Your task to perform on an android device: read, delete, or share a saved page in the chrome app Image 0: 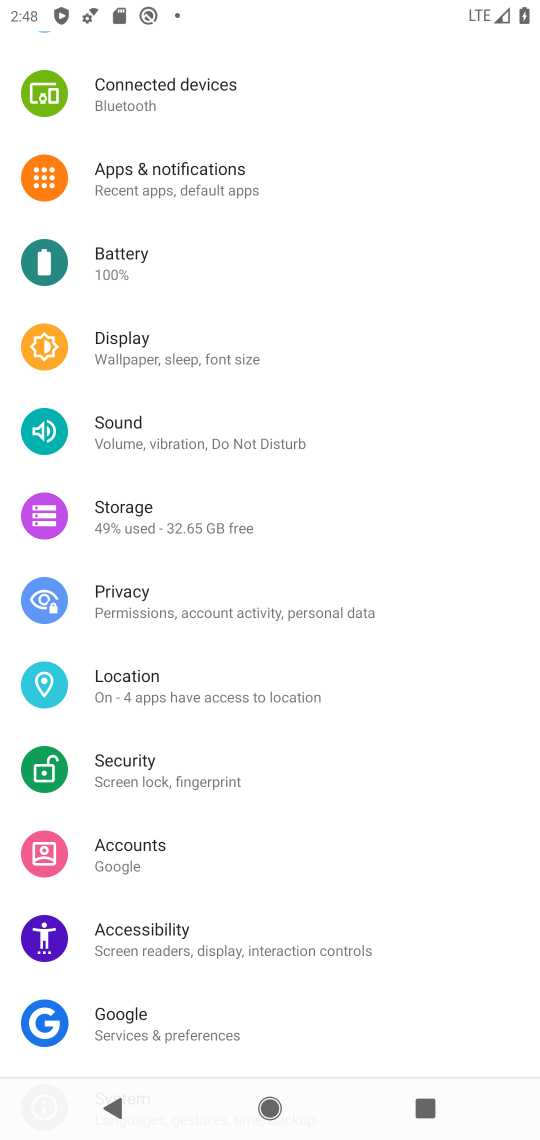
Step 0: press home button
Your task to perform on an android device: read, delete, or share a saved page in the chrome app Image 1: 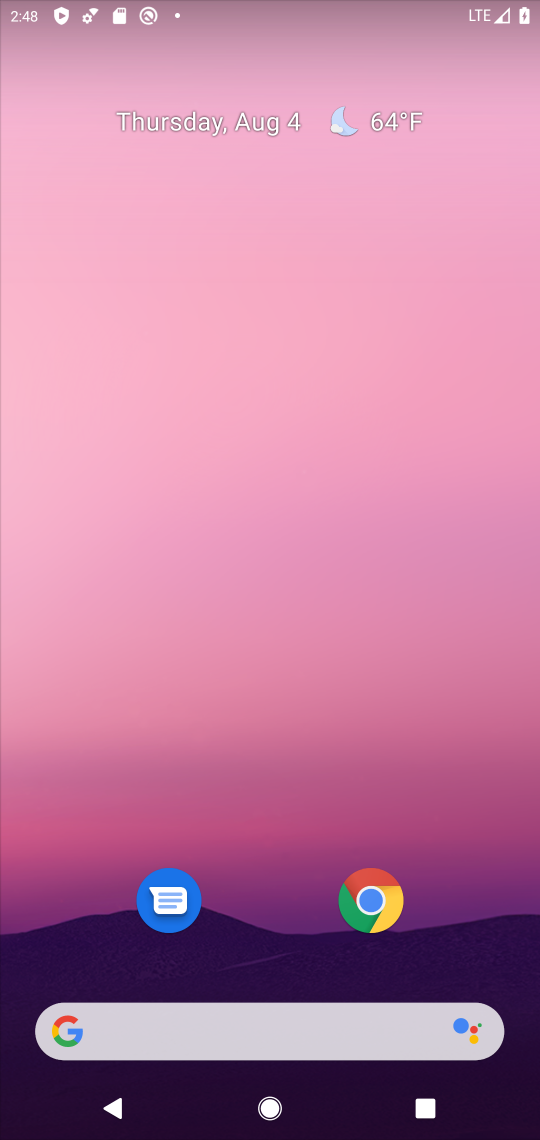
Step 1: click (402, 889)
Your task to perform on an android device: read, delete, or share a saved page in the chrome app Image 2: 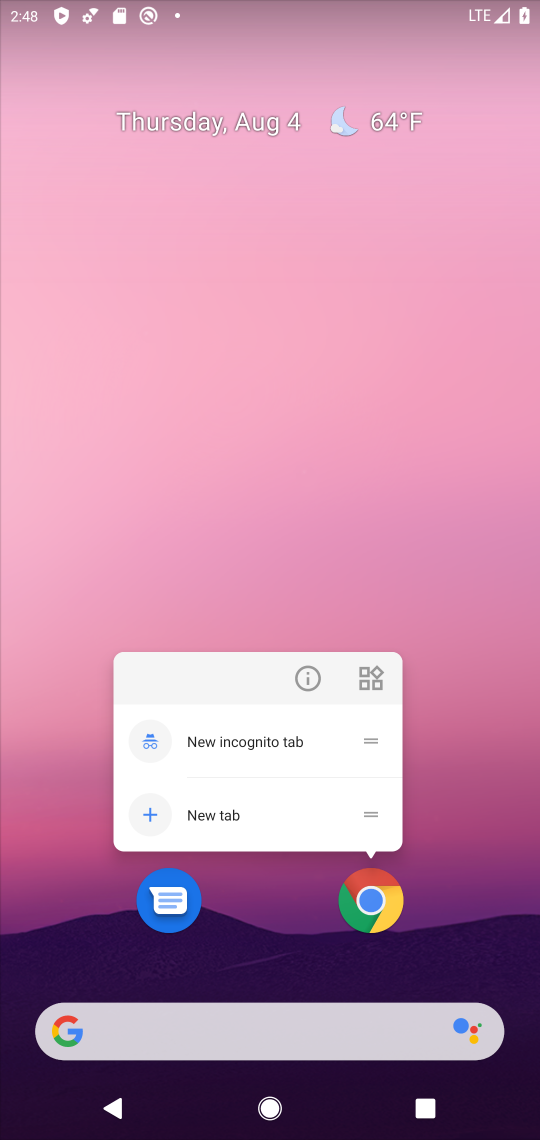
Step 2: click (388, 889)
Your task to perform on an android device: read, delete, or share a saved page in the chrome app Image 3: 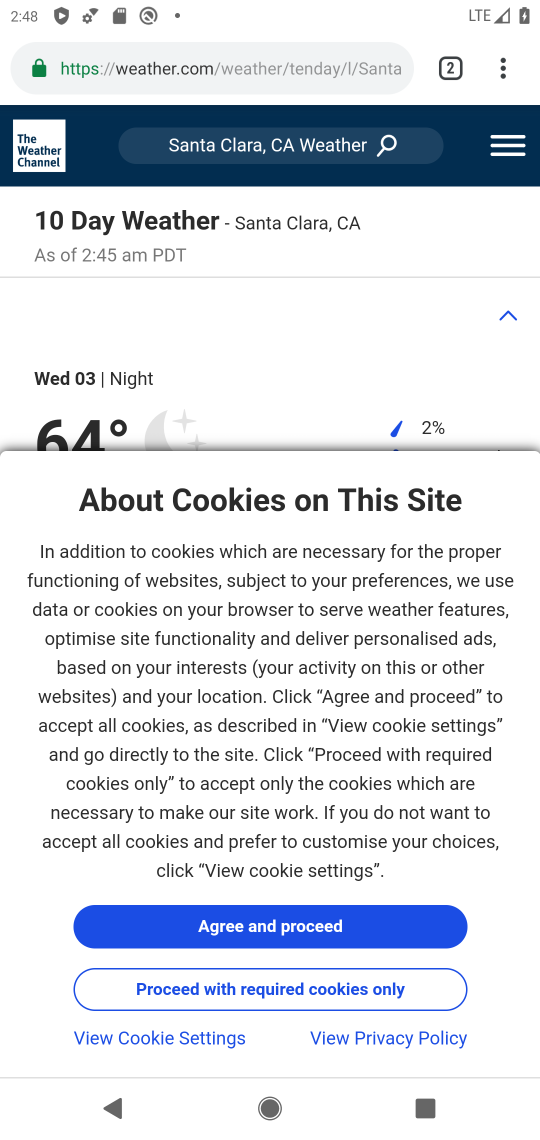
Step 3: click (510, 75)
Your task to perform on an android device: read, delete, or share a saved page in the chrome app Image 4: 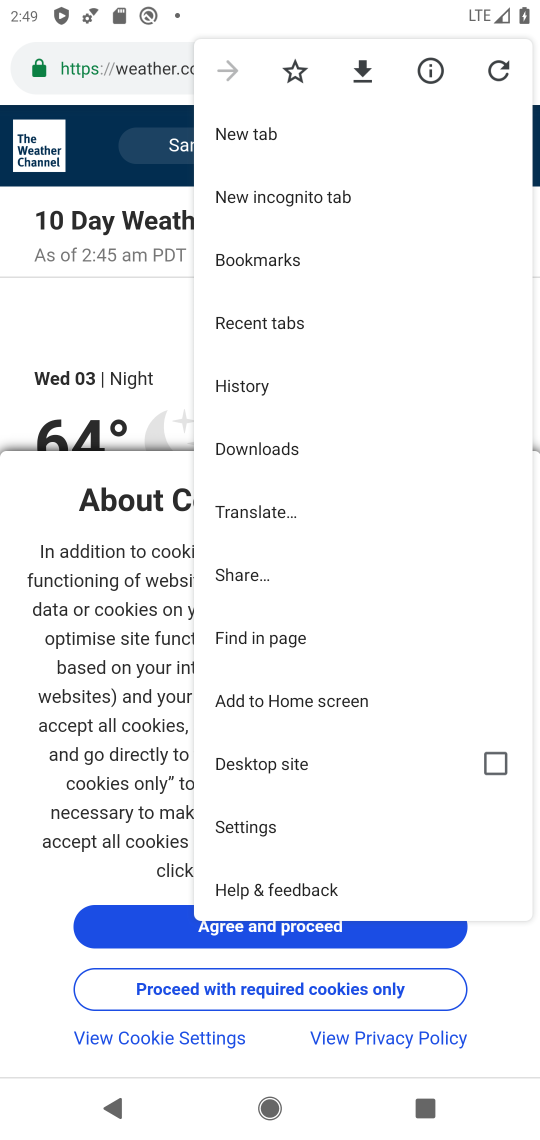
Step 4: click (272, 458)
Your task to perform on an android device: read, delete, or share a saved page in the chrome app Image 5: 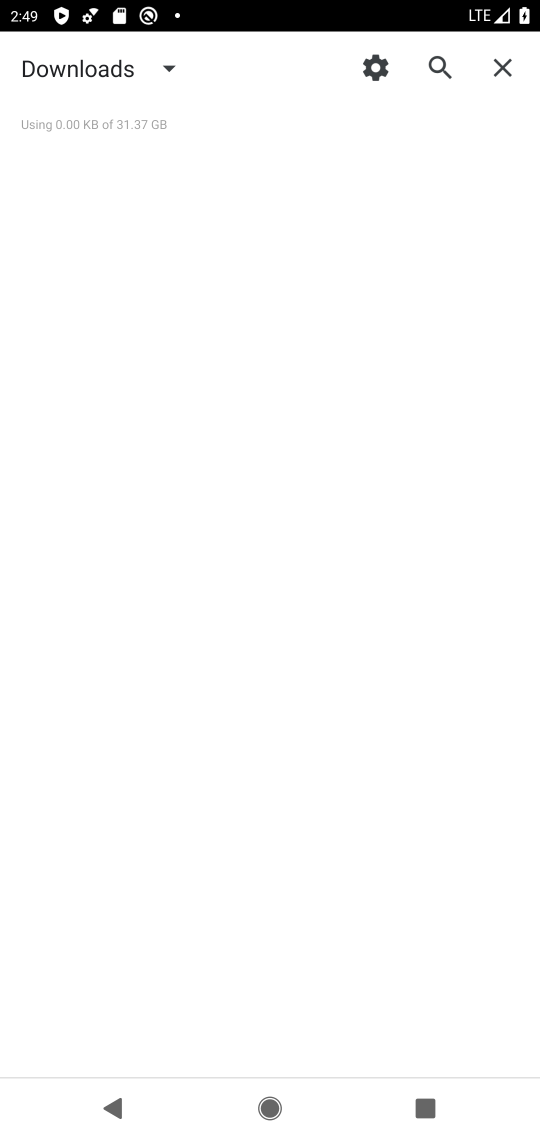
Step 5: click (173, 71)
Your task to perform on an android device: read, delete, or share a saved page in the chrome app Image 6: 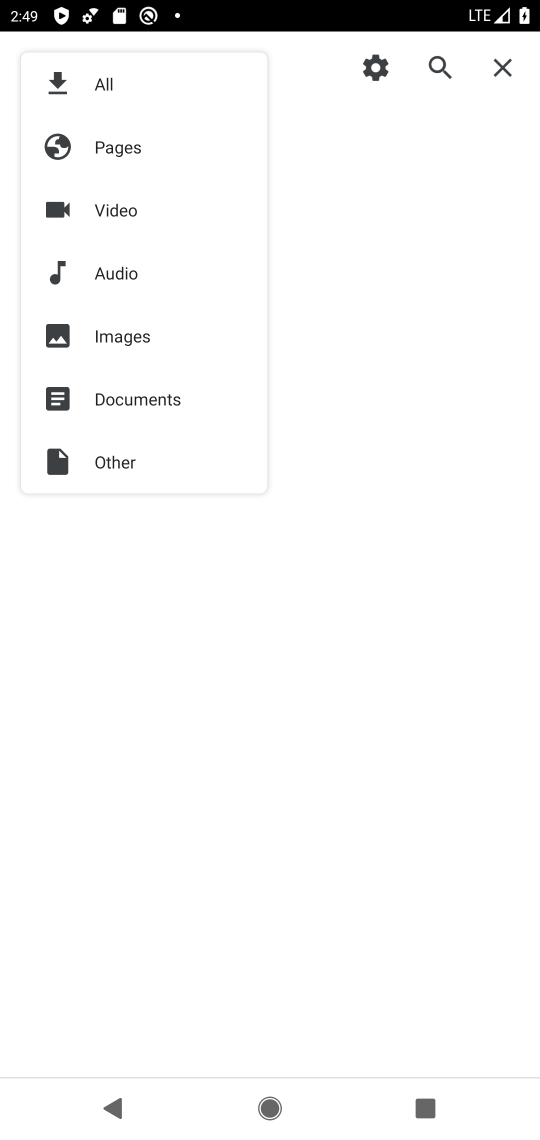
Step 6: click (161, 151)
Your task to perform on an android device: read, delete, or share a saved page in the chrome app Image 7: 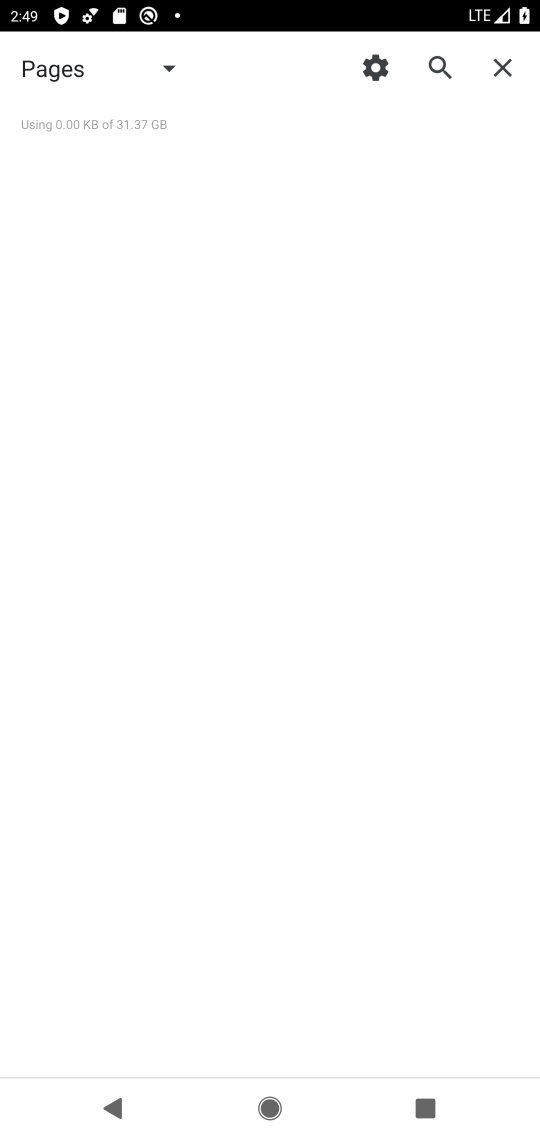
Step 7: task complete